Your task to perform on an android device: Search for flights from NYC to San Francisco Image 0: 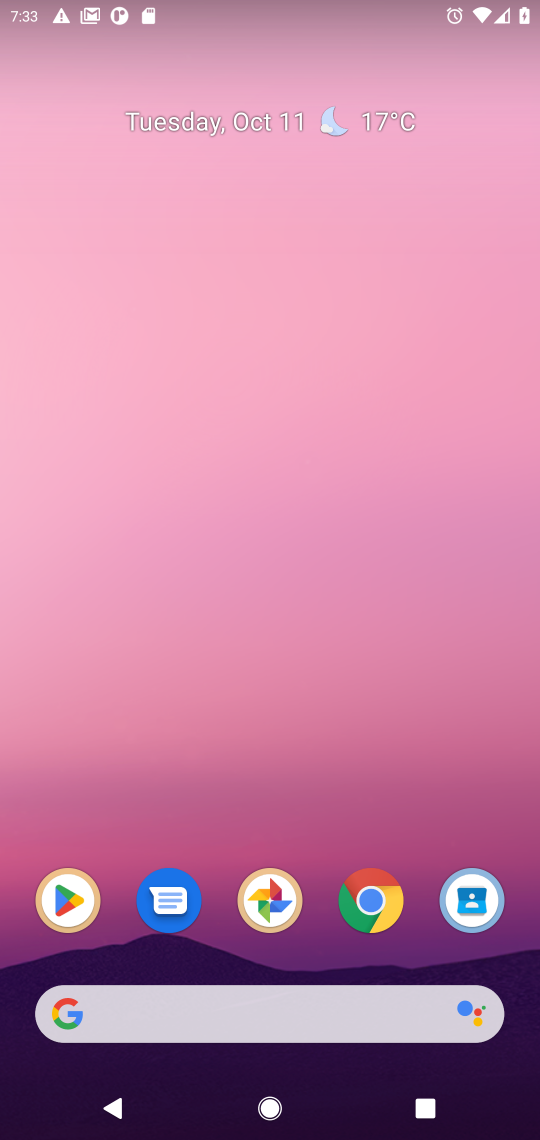
Step 0: click (376, 896)
Your task to perform on an android device: Search for flights from NYC to San Francisco Image 1: 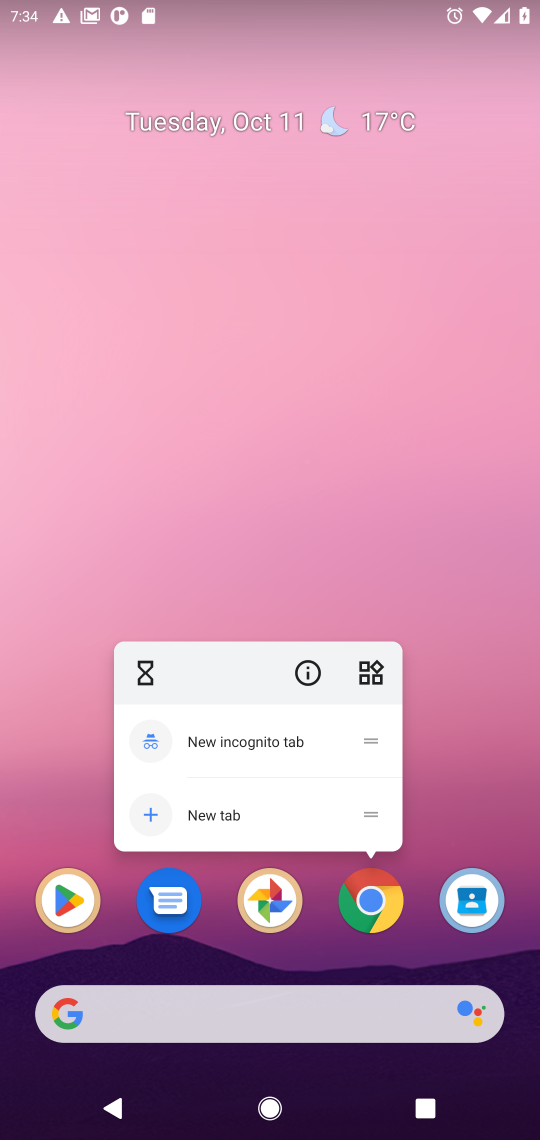
Step 1: click (372, 906)
Your task to perform on an android device: Search for flights from NYC to San Francisco Image 2: 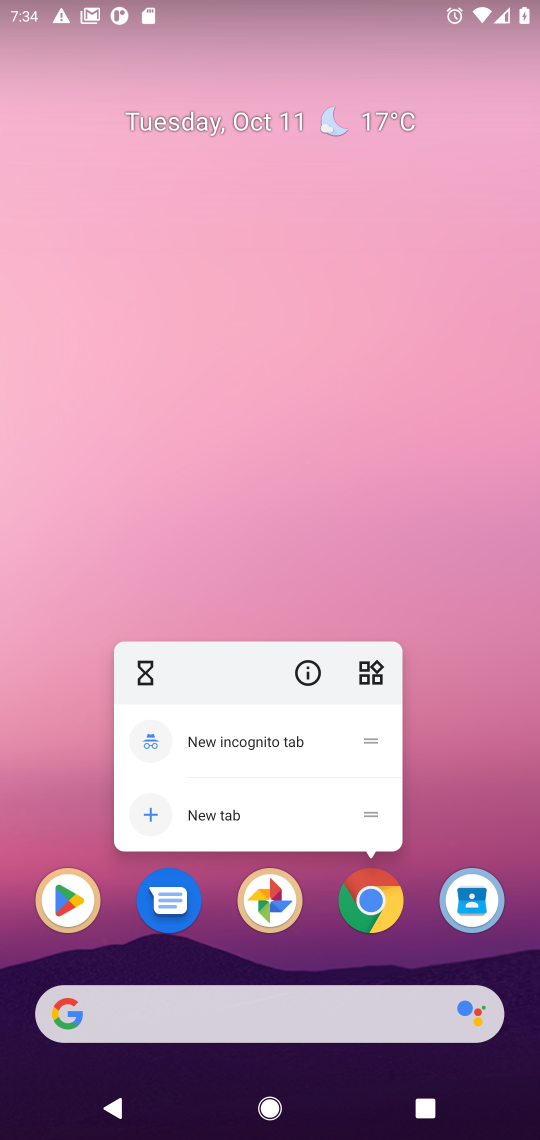
Step 2: click (382, 902)
Your task to perform on an android device: Search for flights from NYC to San Francisco Image 3: 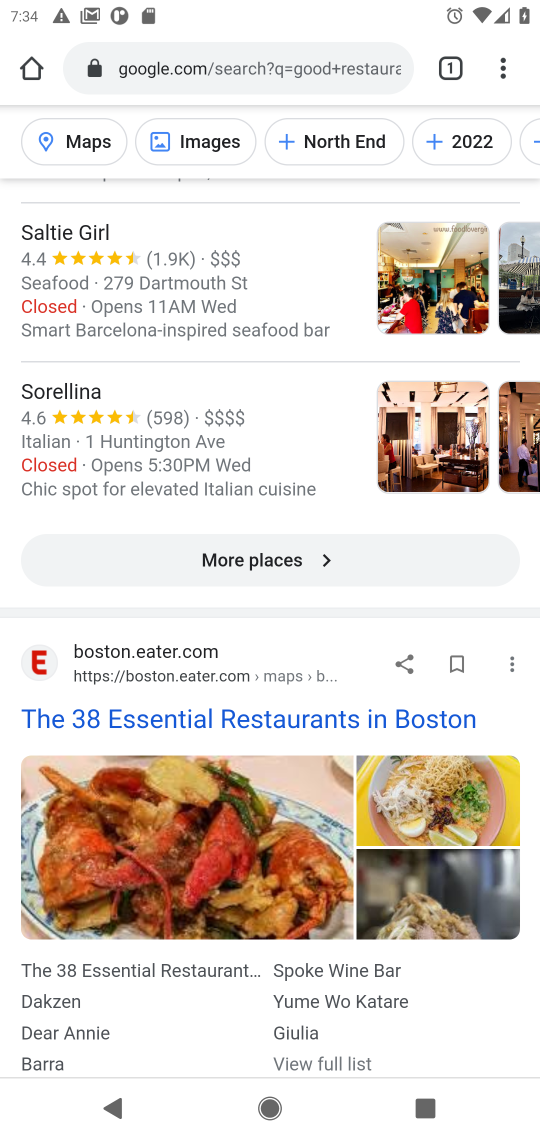
Step 3: click (231, 67)
Your task to perform on an android device: Search for flights from NYC to San Francisco Image 4: 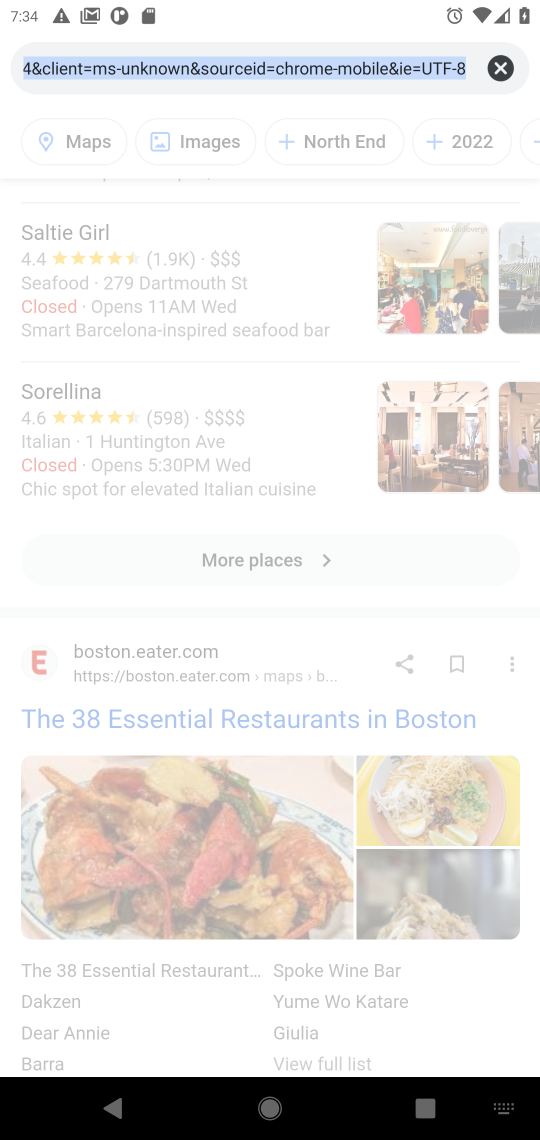
Step 4: click (499, 59)
Your task to perform on an android device: Search for flights from NYC to San Francisco Image 5: 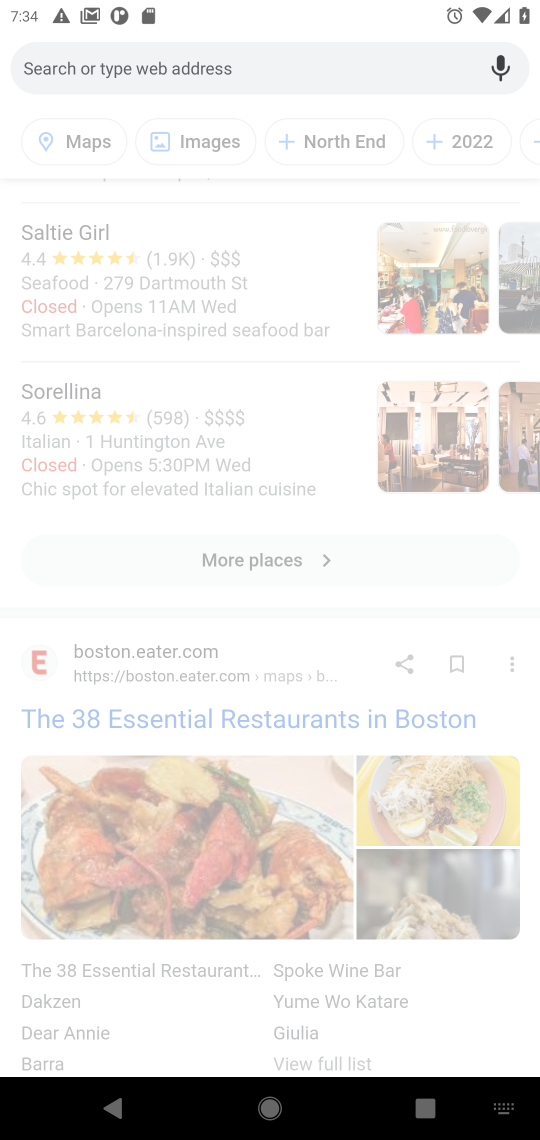
Step 5: type "flights from NYC to San Francisco"
Your task to perform on an android device: Search for flights from NYC to San Francisco Image 6: 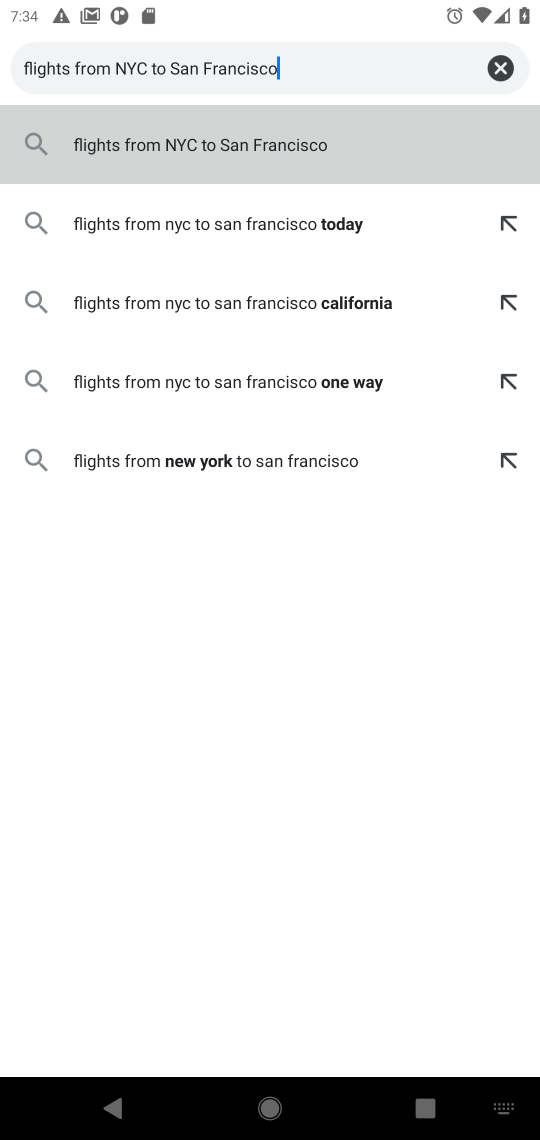
Step 6: click (287, 140)
Your task to perform on an android device: Search for flights from NYC to San Francisco Image 7: 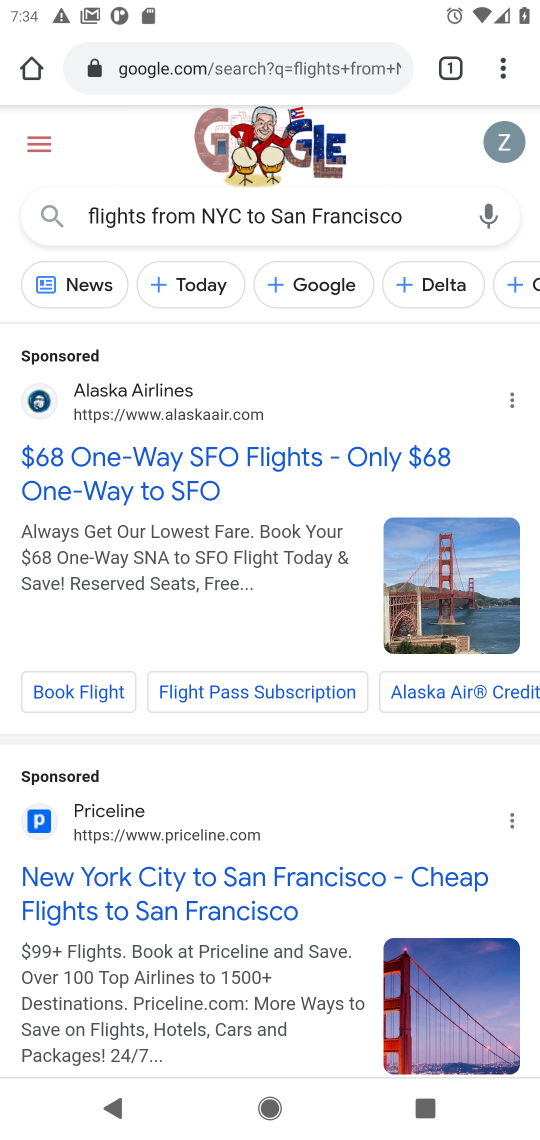
Step 7: drag from (188, 830) to (303, 41)
Your task to perform on an android device: Search for flights from NYC to San Francisco Image 8: 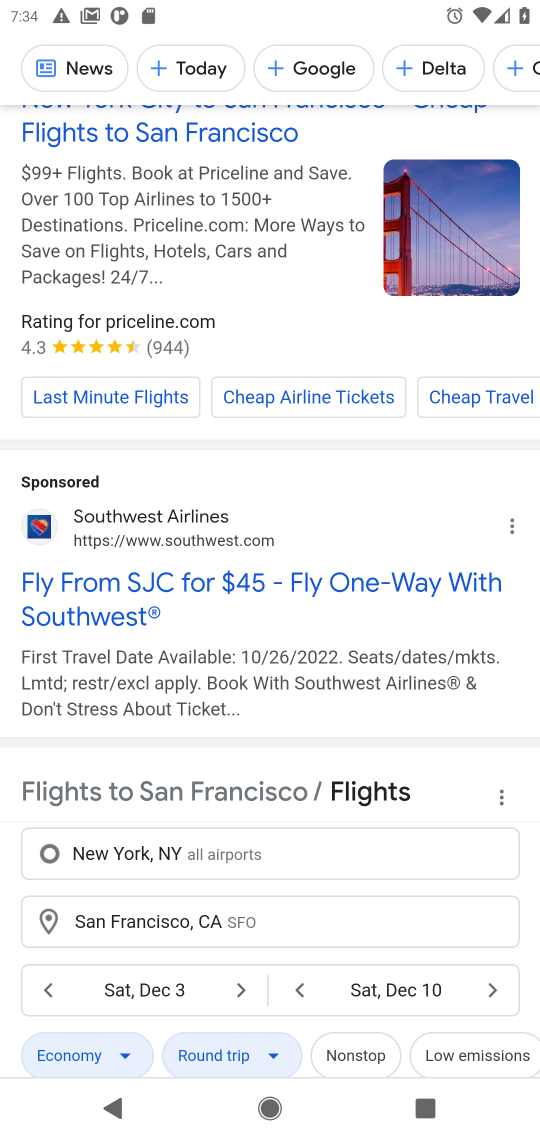
Step 8: drag from (249, 789) to (297, 151)
Your task to perform on an android device: Search for flights from NYC to San Francisco Image 9: 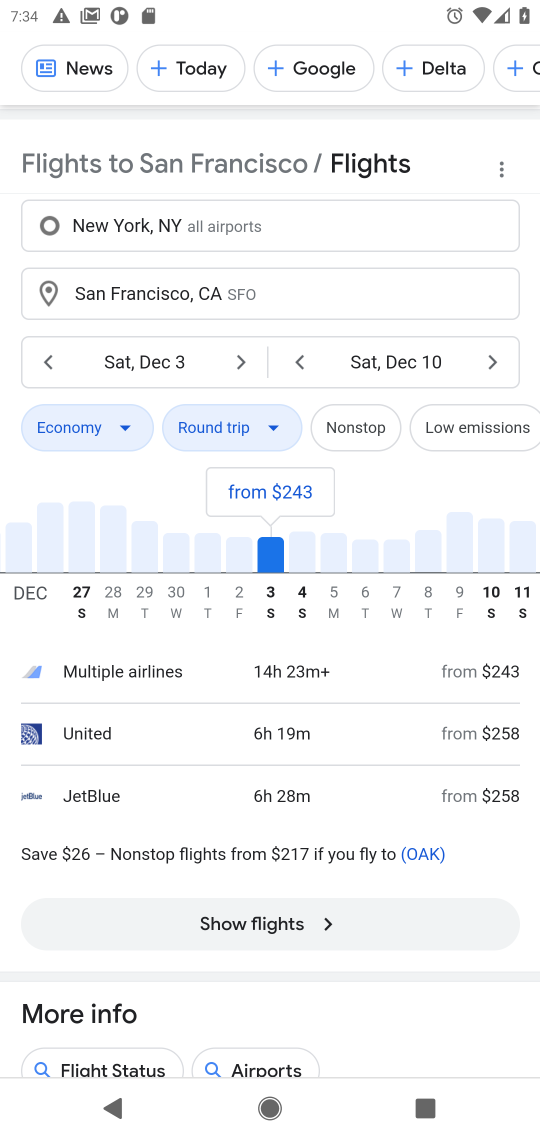
Step 9: click (268, 918)
Your task to perform on an android device: Search for flights from NYC to San Francisco Image 10: 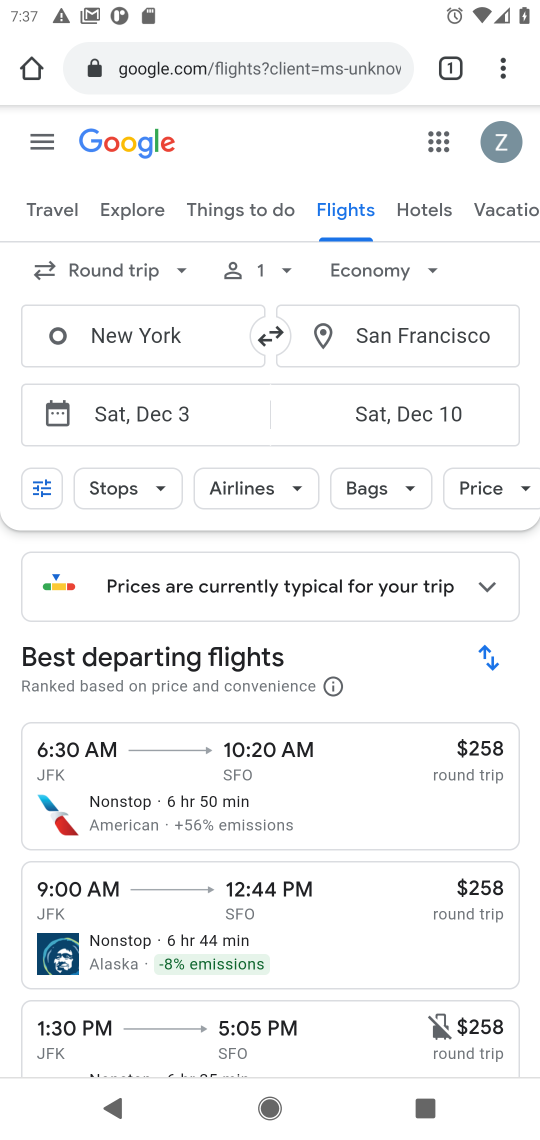
Step 10: task complete